Your task to perform on an android device: turn on location history Image 0: 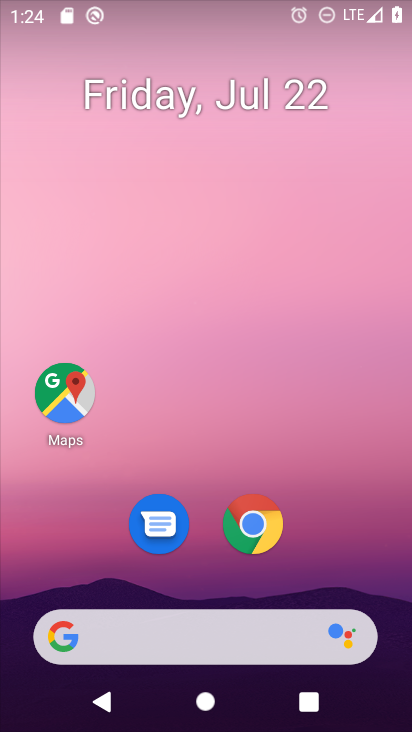
Step 0: drag from (329, 551) to (368, 56)
Your task to perform on an android device: turn on location history Image 1: 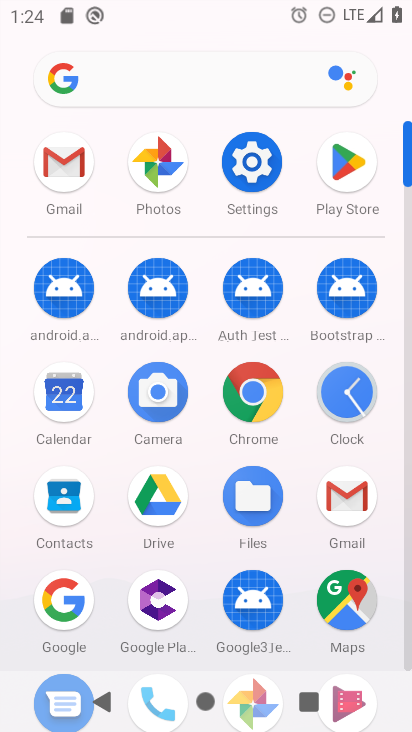
Step 1: click (253, 153)
Your task to perform on an android device: turn on location history Image 2: 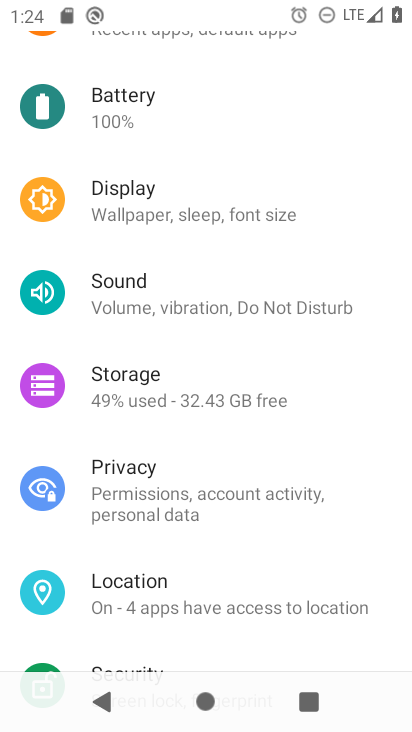
Step 2: click (169, 589)
Your task to perform on an android device: turn on location history Image 3: 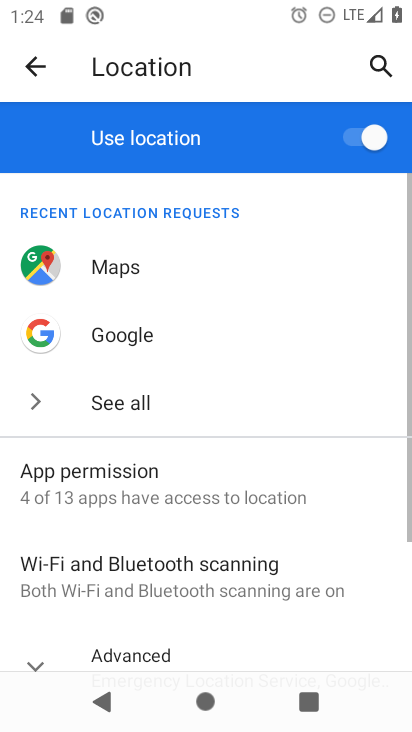
Step 3: click (36, 657)
Your task to perform on an android device: turn on location history Image 4: 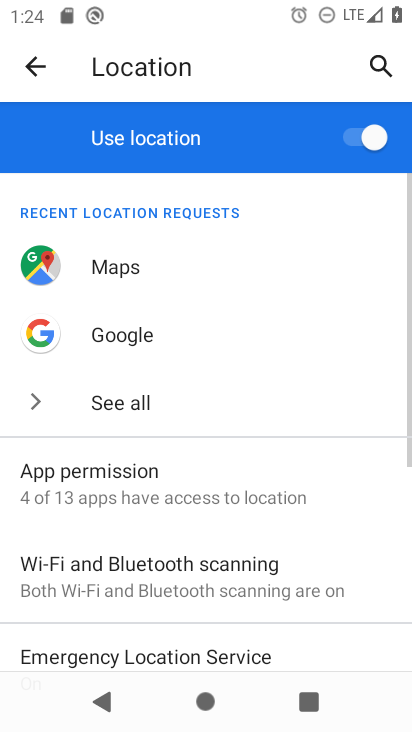
Step 4: drag from (231, 546) to (331, 207)
Your task to perform on an android device: turn on location history Image 5: 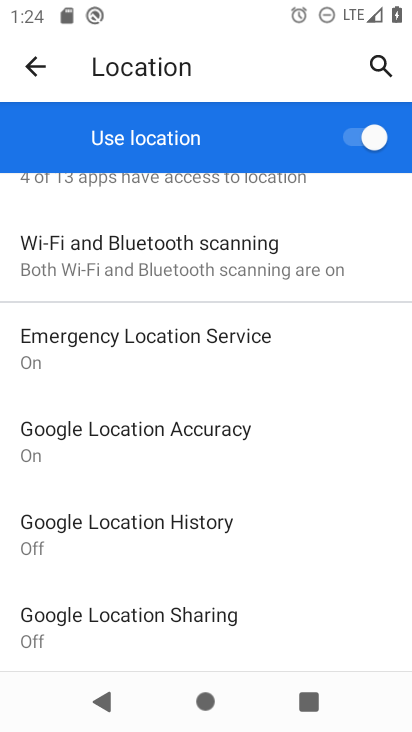
Step 5: click (93, 529)
Your task to perform on an android device: turn on location history Image 6: 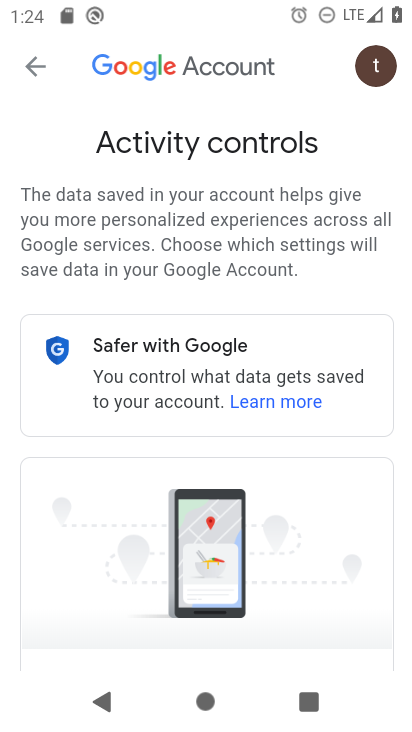
Step 6: task complete